Your task to perform on an android device: toggle notifications settings in the gmail app Image 0: 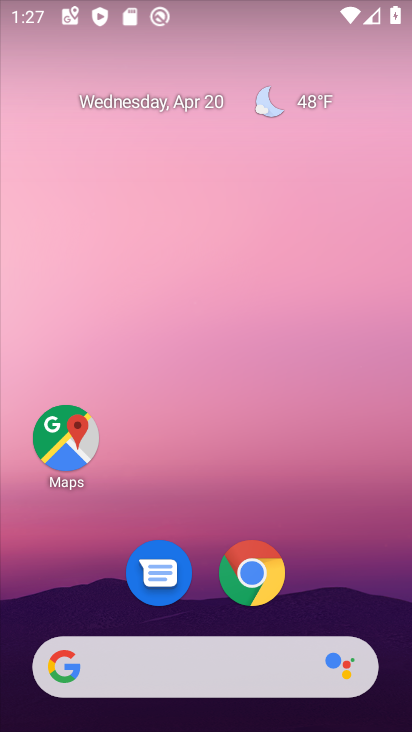
Step 0: drag from (165, 673) to (323, 51)
Your task to perform on an android device: toggle notifications settings in the gmail app Image 1: 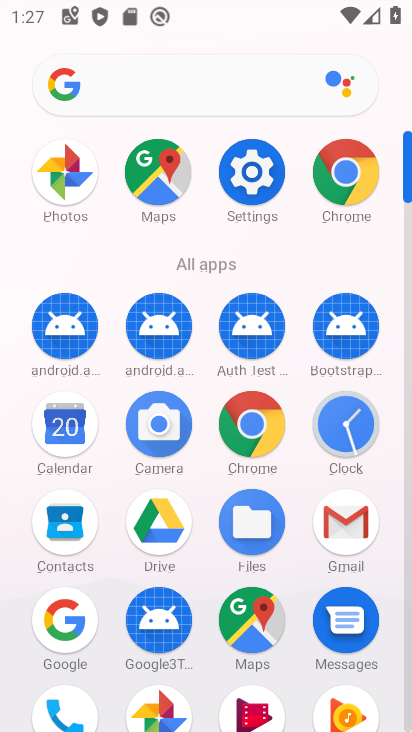
Step 1: click (342, 537)
Your task to perform on an android device: toggle notifications settings in the gmail app Image 2: 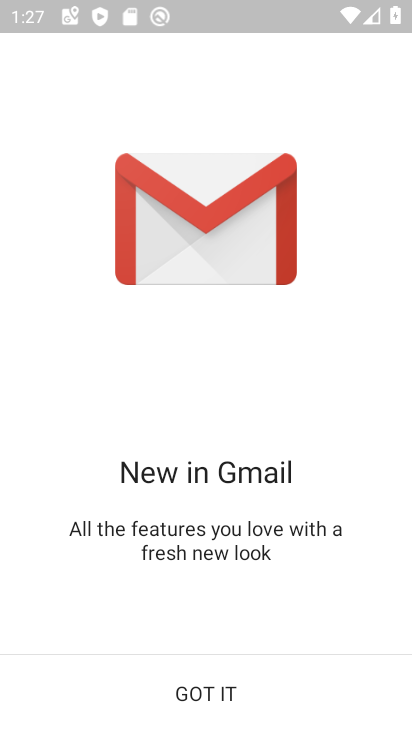
Step 2: click (196, 685)
Your task to perform on an android device: toggle notifications settings in the gmail app Image 3: 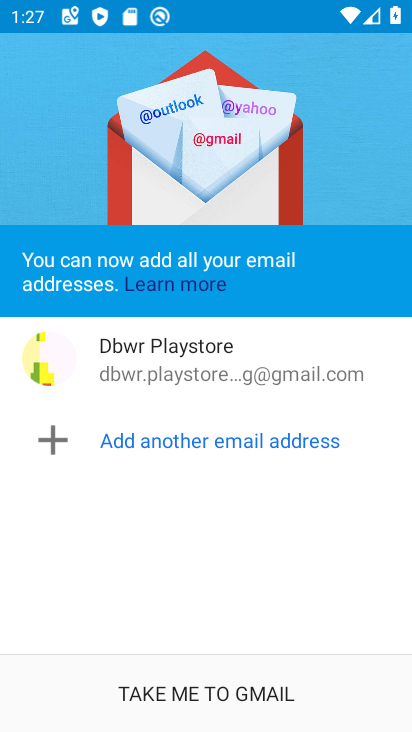
Step 3: click (194, 688)
Your task to perform on an android device: toggle notifications settings in the gmail app Image 4: 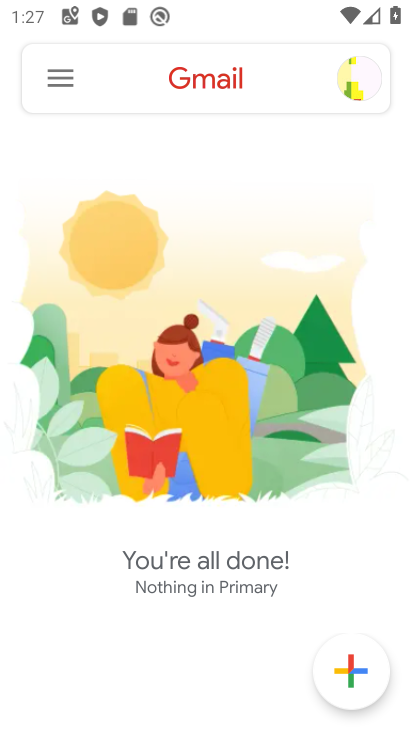
Step 4: click (61, 74)
Your task to perform on an android device: toggle notifications settings in the gmail app Image 5: 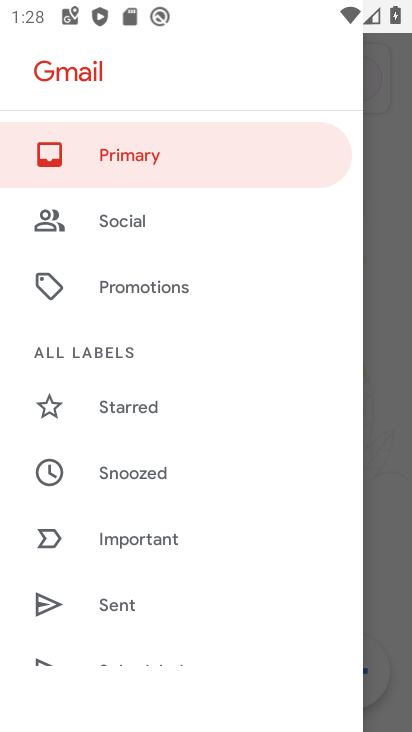
Step 5: drag from (201, 605) to (320, 242)
Your task to perform on an android device: toggle notifications settings in the gmail app Image 6: 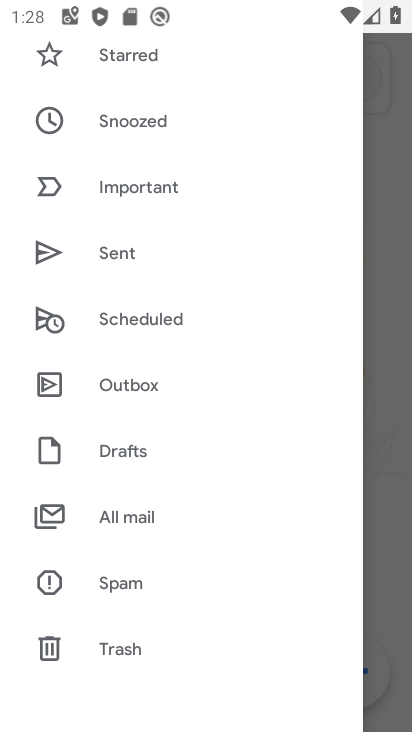
Step 6: drag from (164, 624) to (323, 97)
Your task to perform on an android device: toggle notifications settings in the gmail app Image 7: 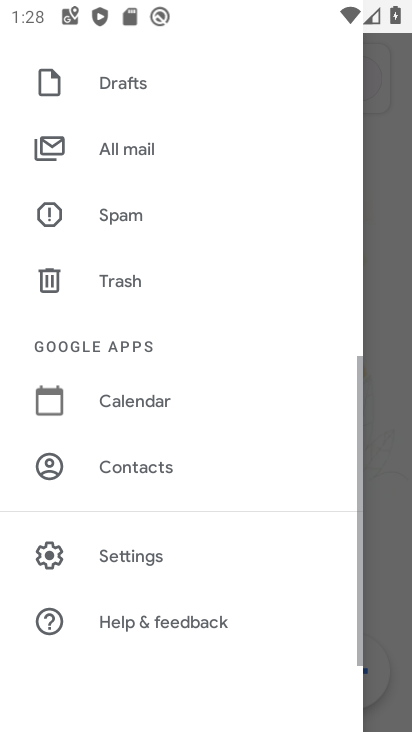
Step 7: click (152, 556)
Your task to perform on an android device: toggle notifications settings in the gmail app Image 8: 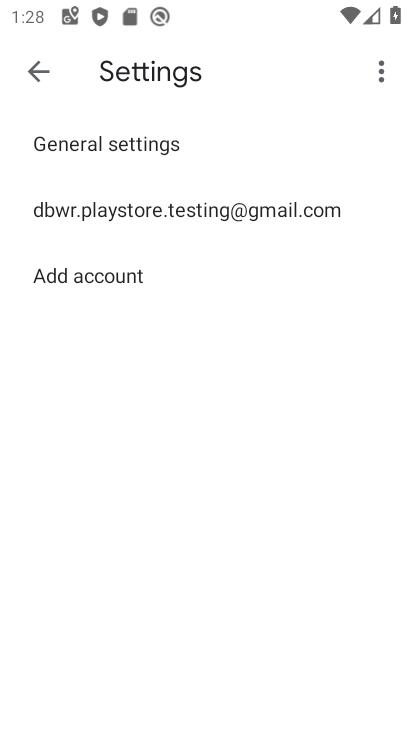
Step 8: click (232, 209)
Your task to perform on an android device: toggle notifications settings in the gmail app Image 9: 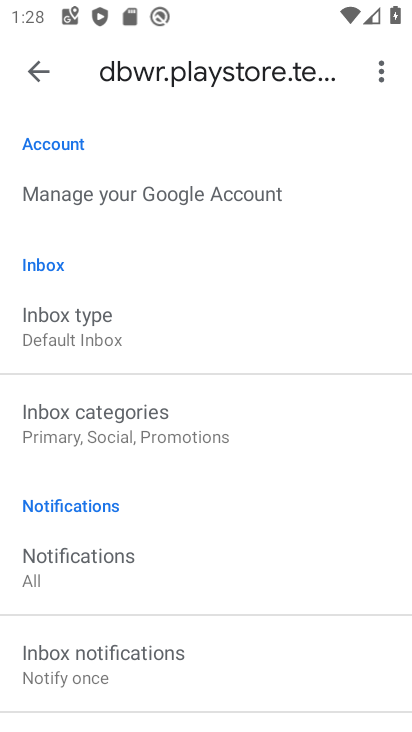
Step 9: click (105, 562)
Your task to perform on an android device: toggle notifications settings in the gmail app Image 10: 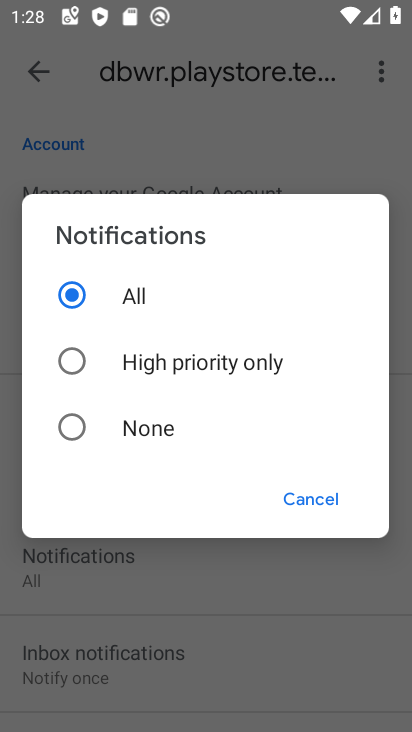
Step 10: click (79, 423)
Your task to perform on an android device: toggle notifications settings in the gmail app Image 11: 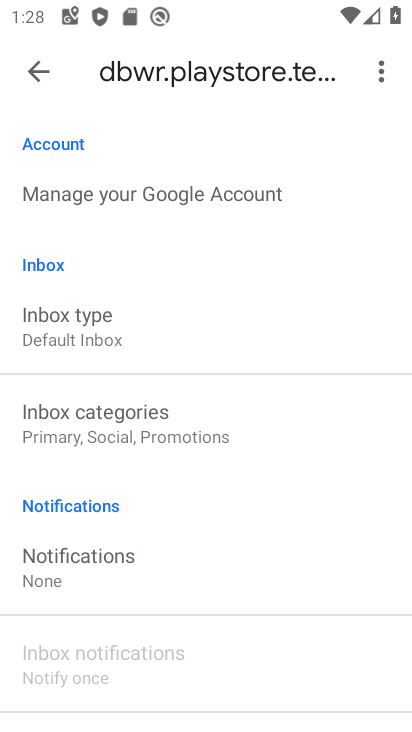
Step 11: task complete